Your task to perform on an android device: Search for Mexican restaurants on Maps Image 0: 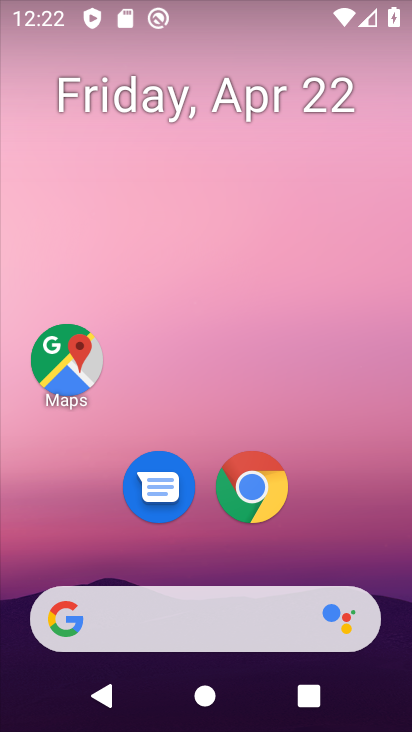
Step 0: click (82, 357)
Your task to perform on an android device: Search for Mexican restaurants on Maps Image 1: 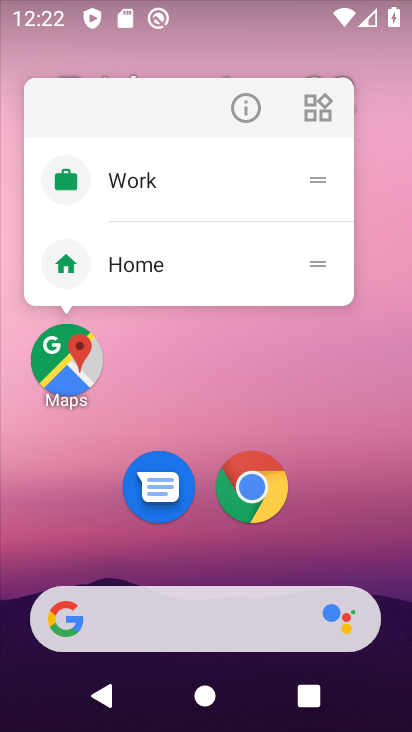
Step 1: click (81, 360)
Your task to perform on an android device: Search for Mexican restaurants on Maps Image 2: 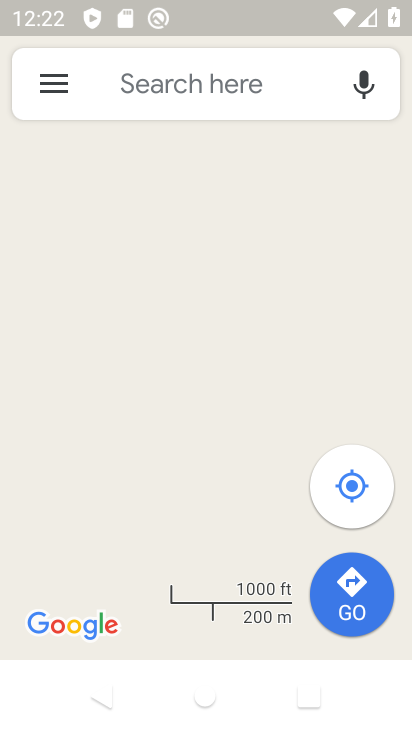
Step 2: click (234, 84)
Your task to perform on an android device: Search for Mexican restaurants on Maps Image 3: 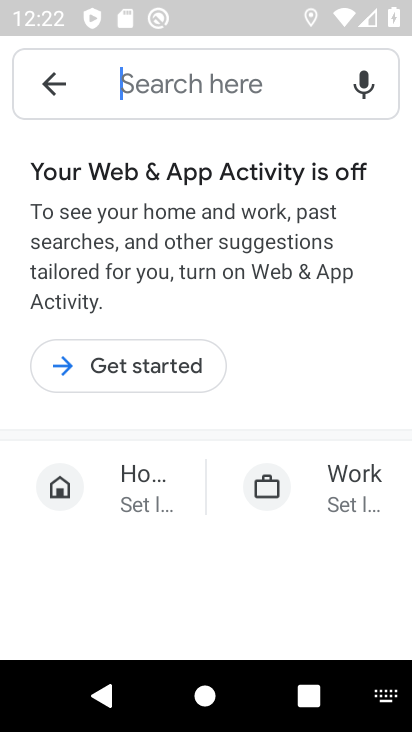
Step 3: type "Mexican restaurants"
Your task to perform on an android device: Search for Mexican restaurants on Maps Image 4: 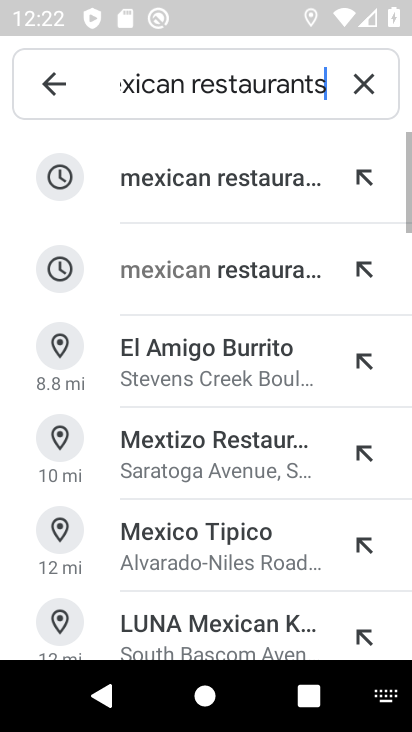
Step 4: click (229, 175)
Your task to perform on an android device: Search for Mexican restaurants on Maps Image 5: 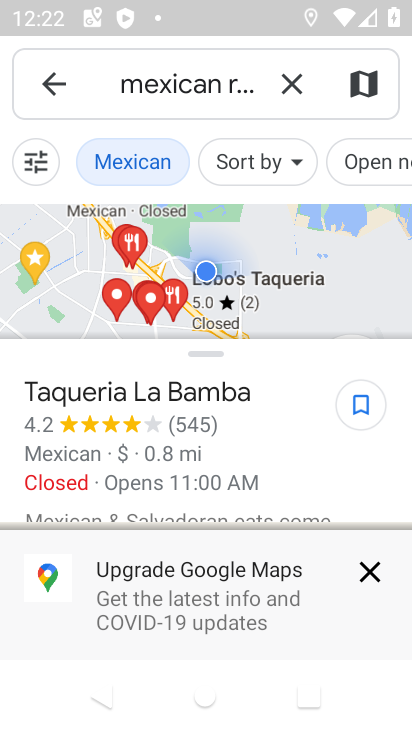
Step 5: task complete